Your task to perform on an android device: Show me the alarms in the clock app Image 0: 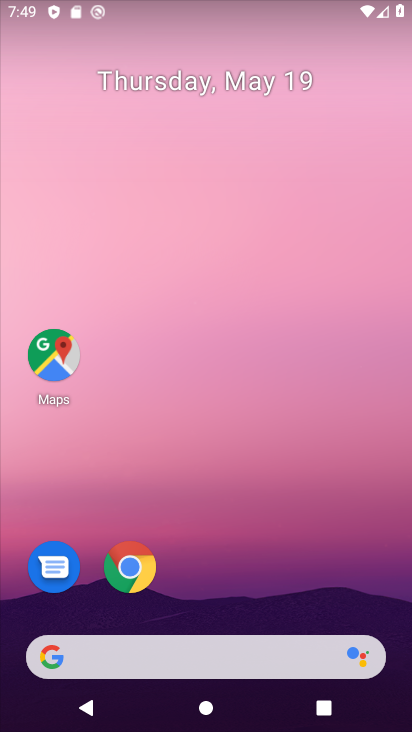
Step 0: drag from (212, 606) to (270, 49)
Your task to perform on an android device: Show me the alarms in the clock app Image 1: 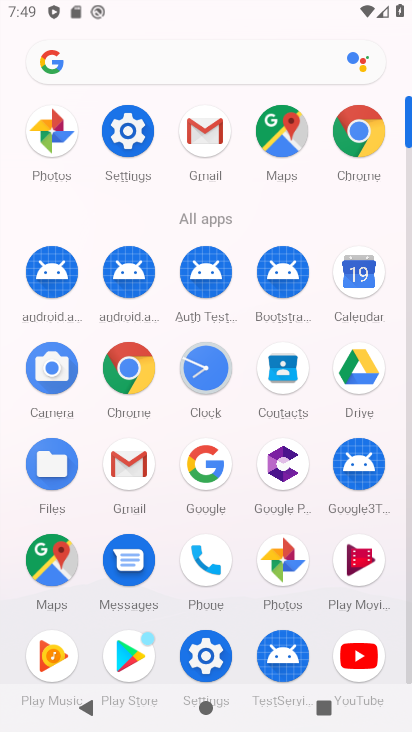
Step 1: click (205, 363)
Your task to perform on an android device: Show me the alarms in the clock app Image 2: 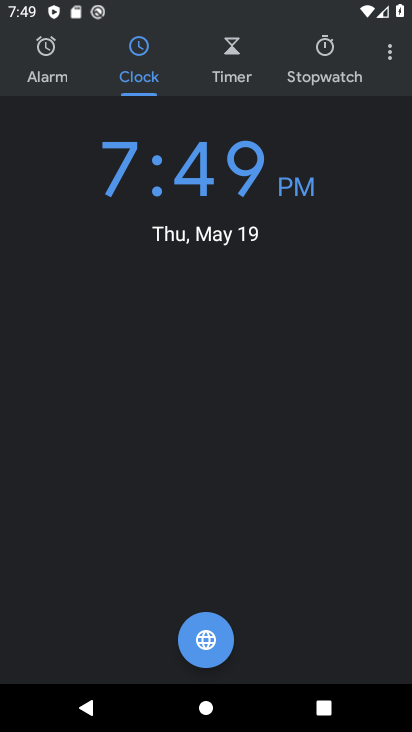
Step 2: click (43, 65)
Your task to perform on an android device: Show me the alarms in the clock app Image 3: 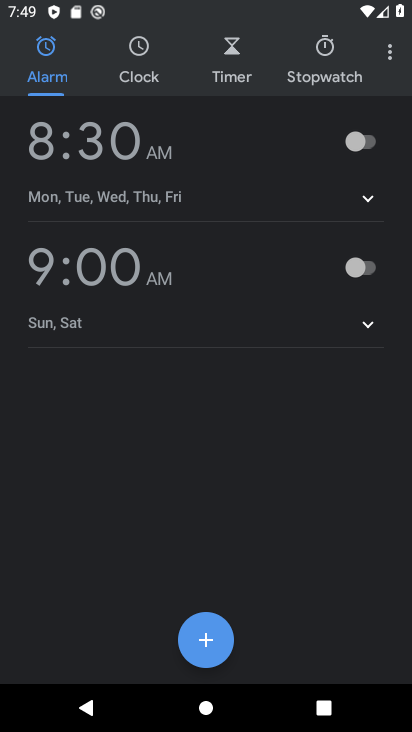
Step 3: task complete